Your task to perform on an android device: empty trash in google photos Image 0: 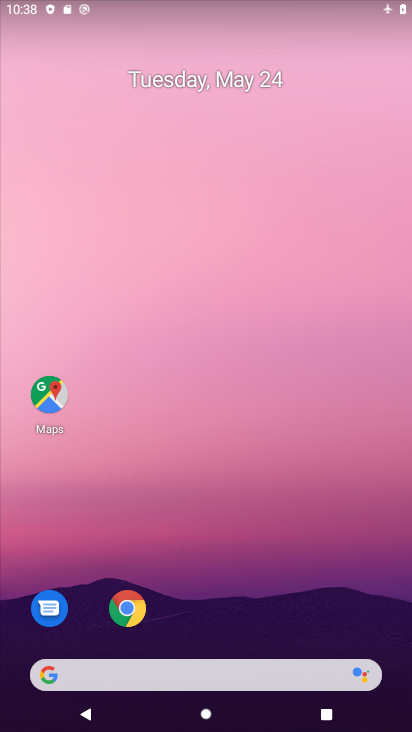
Step 0: drag from (375, 609) to (296, 141)
Your task to perform on an android device: empty trash in google photos Image 1: 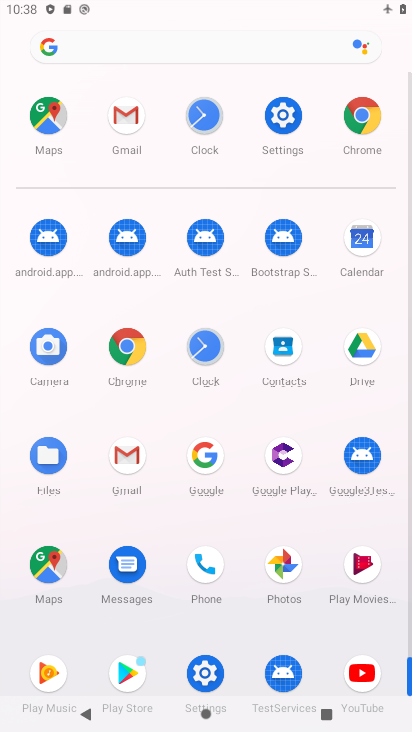
Step 1: click (408, 647)
Your task to perform on an android device: empty trash in google photos Image 2: 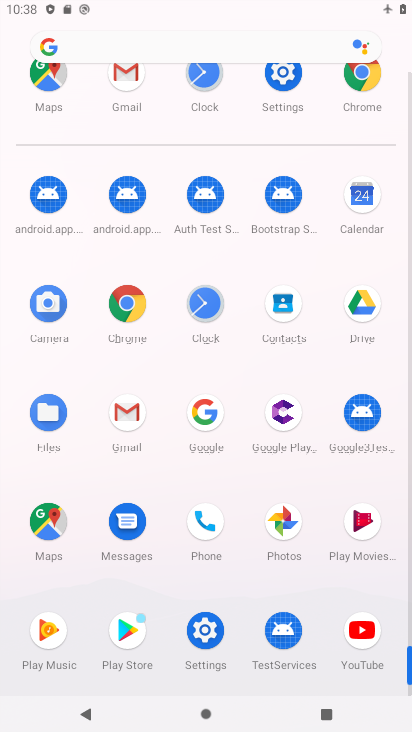
Step 2: click (285, 520)
Your task to perform on an android device: empty trash in google photos Image 3: 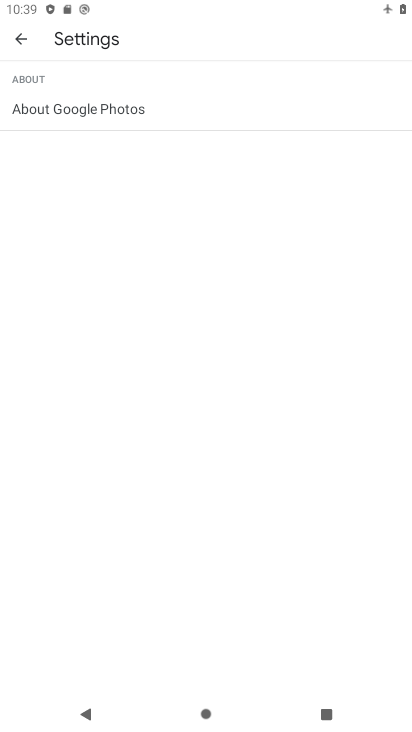
Step 3: press back button
Your task to perform on an android device: empty trash in google photos Image 4: 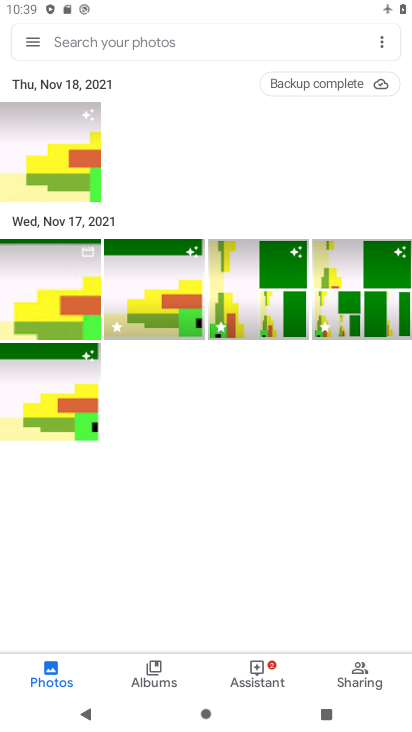
Step 4: click (28, 39)
Your task to perform on an android device: empty trash in google photos Image 5: 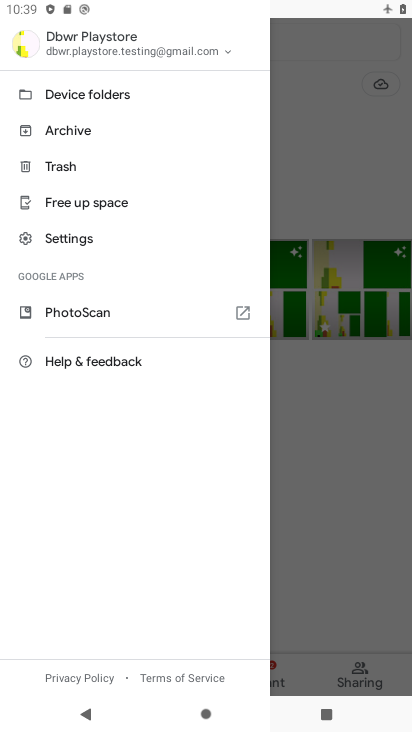
Step 5: click (70, 238)
Your task to perform on an android device: empty trash in google photos Image 6: 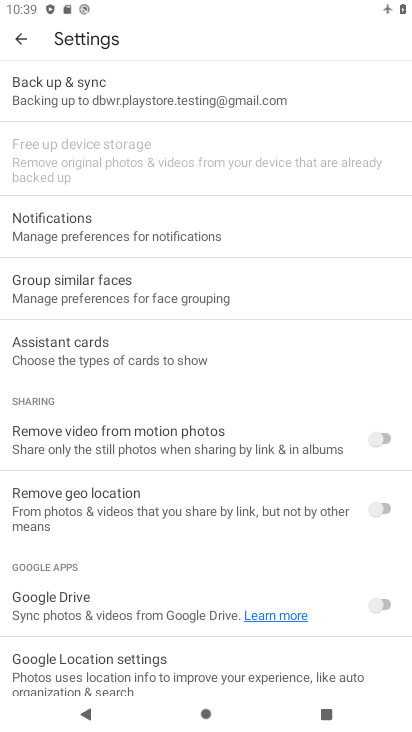
Step 6: press back button
Your task to perform on an android device: empty trash in google photos Image 7: 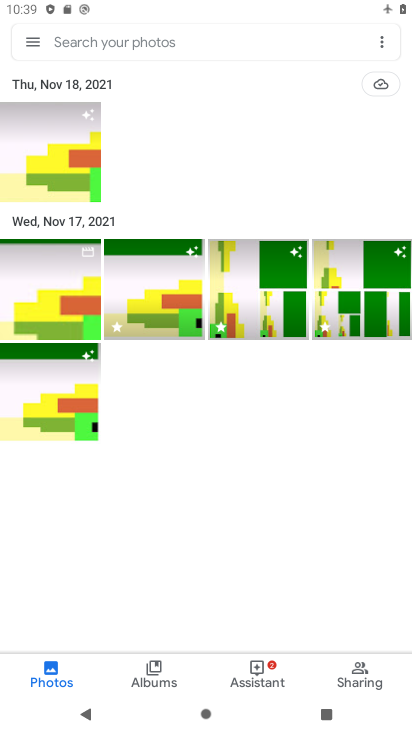
Step 7: click (382, 44)
Your task to perform on an android device: empty trash in google photos Image 8: 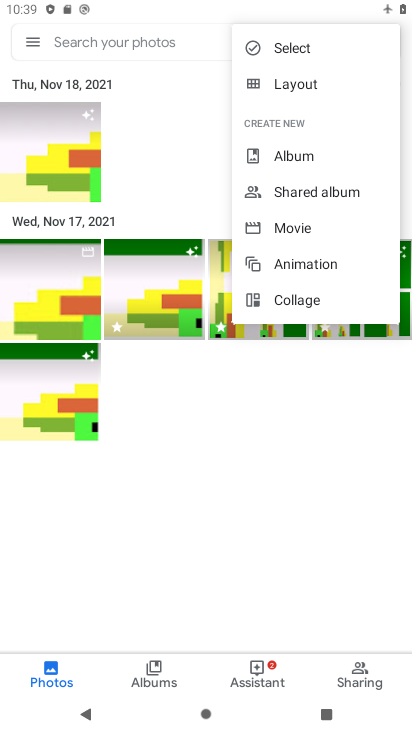
Step 8: click (245, 384)
Your task to perform on an android device: empty trash in google photos Image 9: 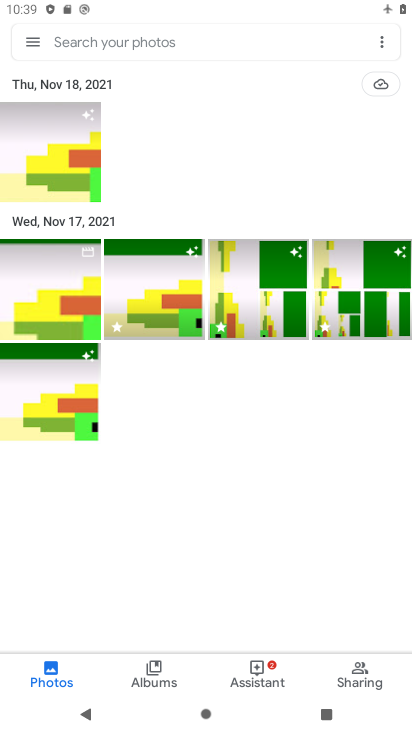
Step 9: click (30, 38)
Your task to perform on an android device: empty trash in google photos Image 10: 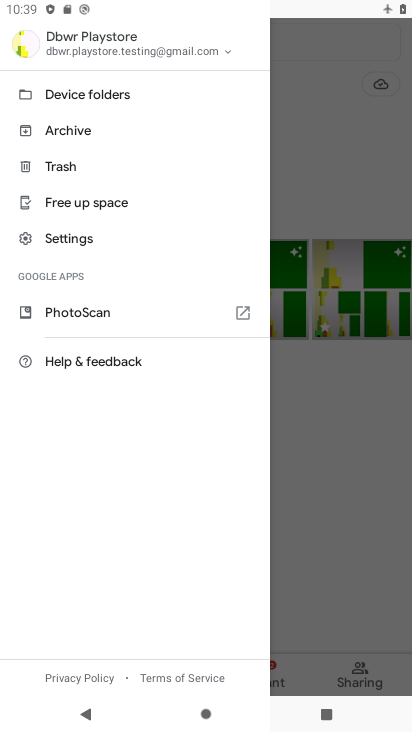
Step 10: click (55, 159)
Your task to perform on an android device: empty trash in google photos Image 11: 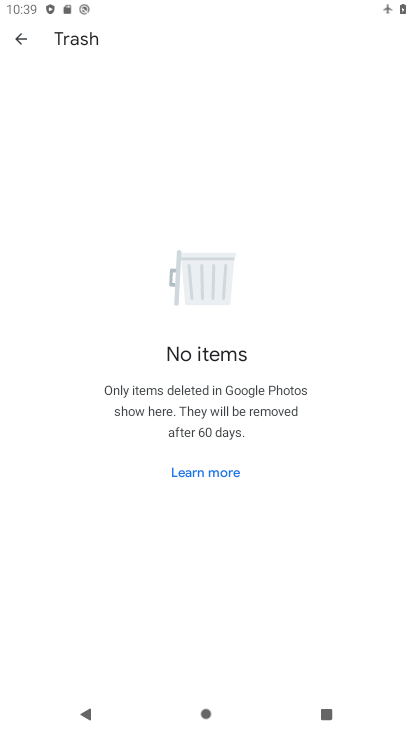
Step 11: task complete